Your task to perform on an android device: Open wifi settings Image 0: 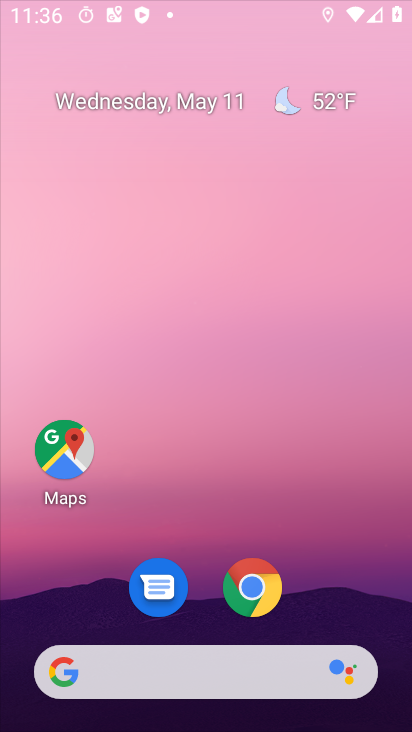
Step 0: drag from (221, 699) to (268, 182)
Your task to perform on an android device: Open wifi settings Image 1: 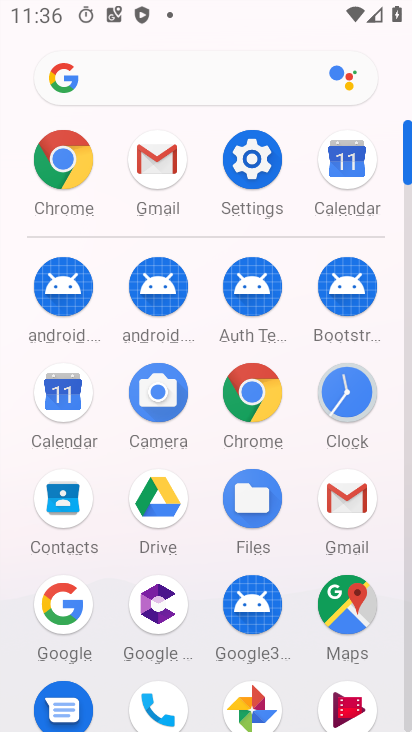
Step 1: click (264, 157)
Your task to perform on an android device: Open wifi settings Image 2: 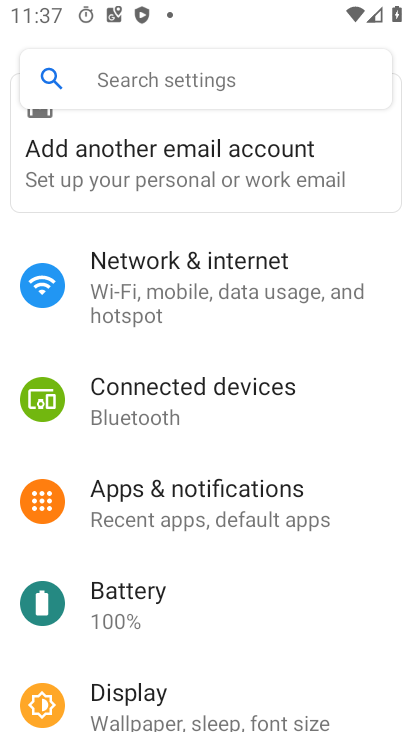
Step 2: click (159, 292)
Your task to perform on an android device: Open wifi settings Image 3: 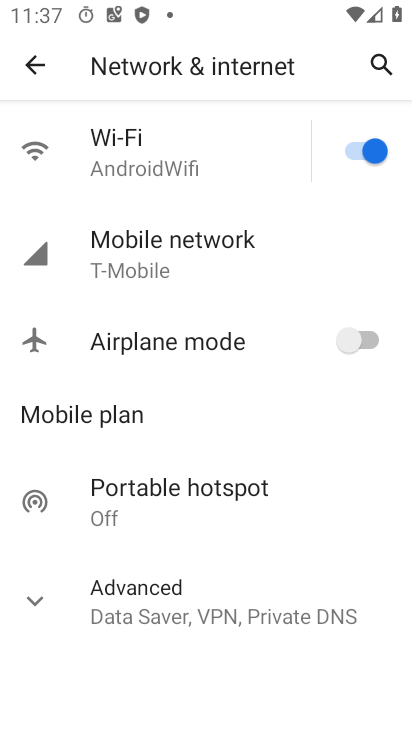
Step 3: click (170, 140)
Your task to perform on an android device: Open wifi settings Image 4: 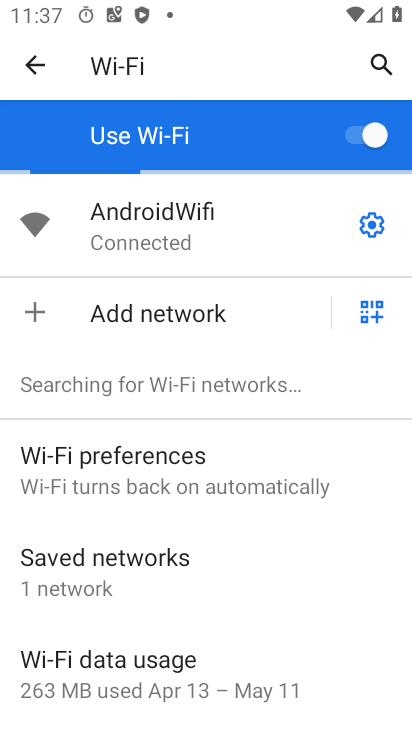
Step 4: task complete